Your task to perform on an android device: open sync settings in chrome Image 0: 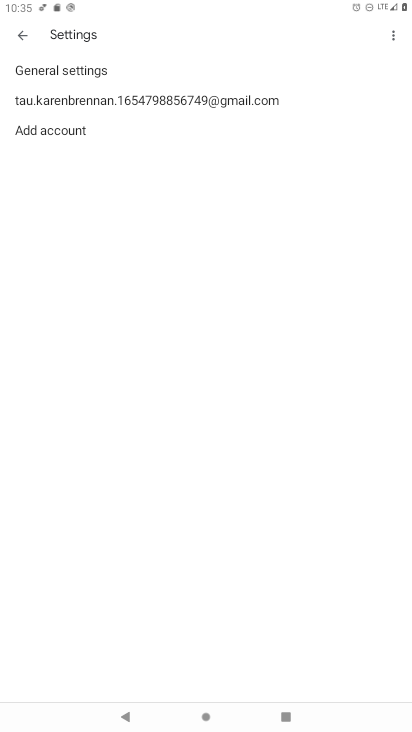
Step 0: press back button
Your task to perform on an android device: open sync settings in chrome Image 1: 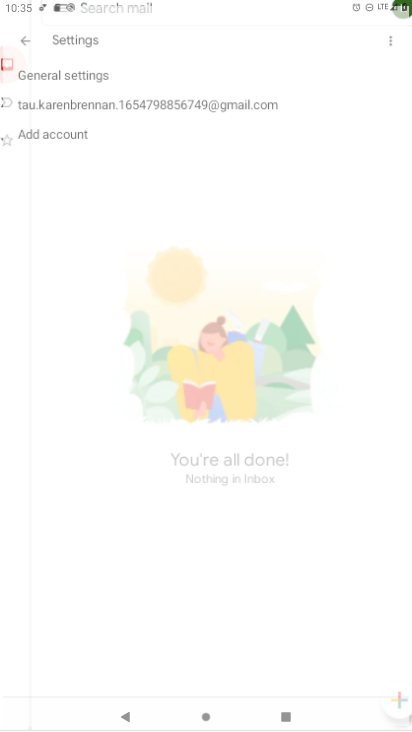
Step 1: press home button
Your task to perform on an android device: open sync settings in chrome Image 2: 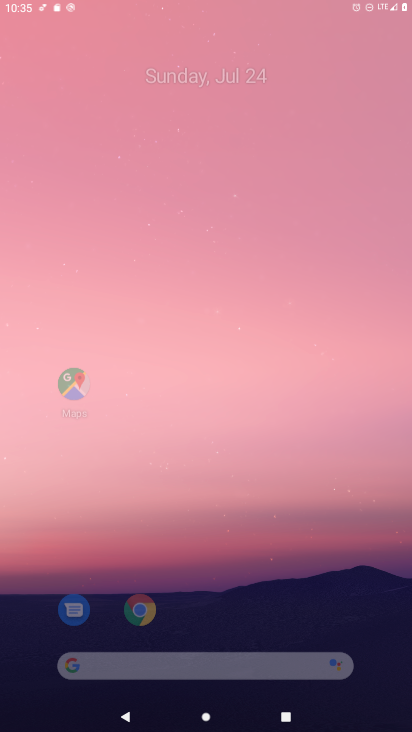
Step 2: drag from (361, 640) to (22, 55)
Your task to perform on an android device: open sync settings in chrome Image 3: 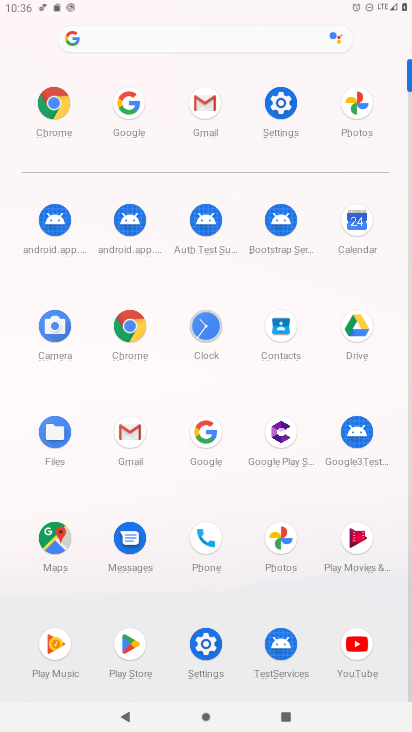
Step 3: click (140, 340)
Your task to perform on an android device: open sync settings in chrome Image 4: 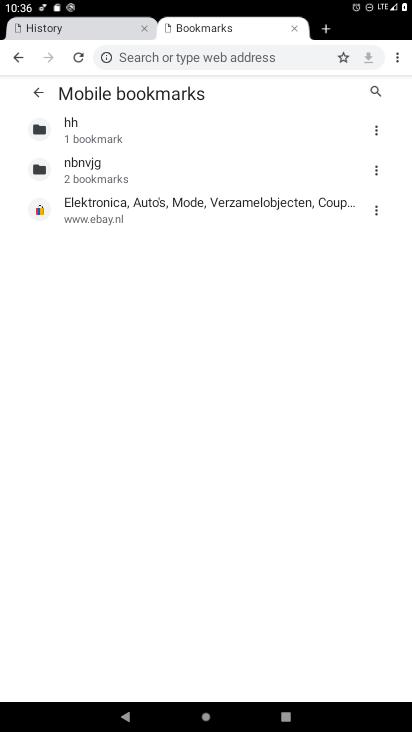
Step 4: click (393, 53)
Your task to perform on an android device: open sync settings in chrome Image 5: 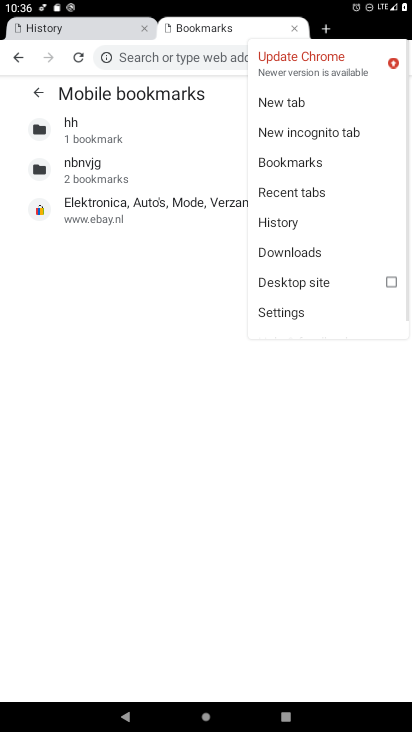
Step 5: click (291, 306)
Your task to perform on an android device: open sync settings in chrome Image 6: 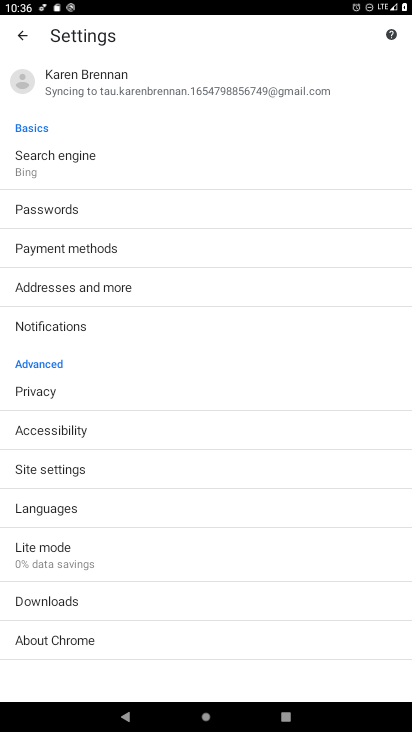
Step 6: click (72, 480)
Your task to perform on an android device: open sync settings in chrome Image 7: 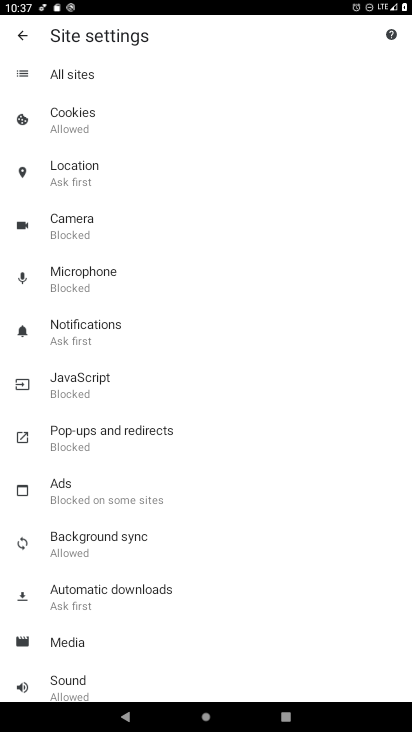
Step 7: click (98, 532)
Your task to perform on an android device: open sync settings in chrome Image 8: 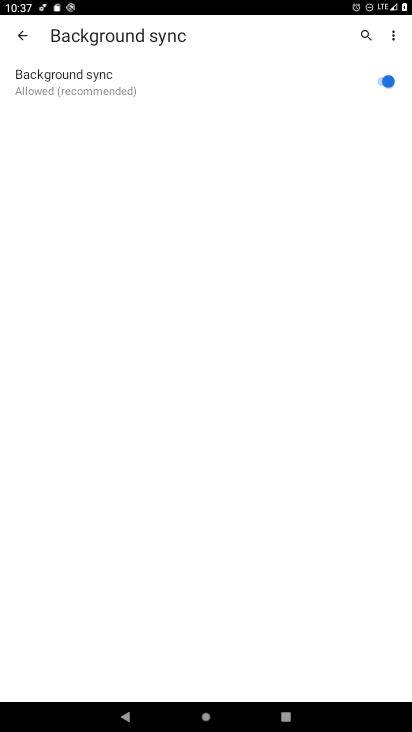
Step 8: task complete